Your task to perform on an android device: open app "Upside-Cash back on gas & food" (install if not already installed), go to login, and select forgot password Image 0: 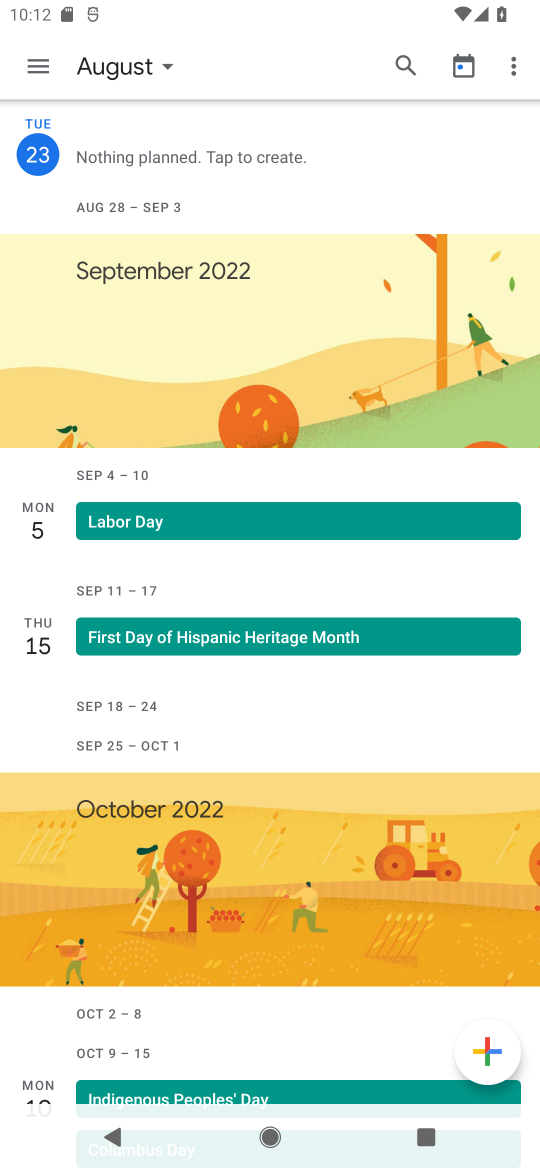
Step 0: press back button
Your task to perform on an android device: open app "Upside-Cash back on gas & food" (install if not already installed), go to login, and select forgot password Image 1: 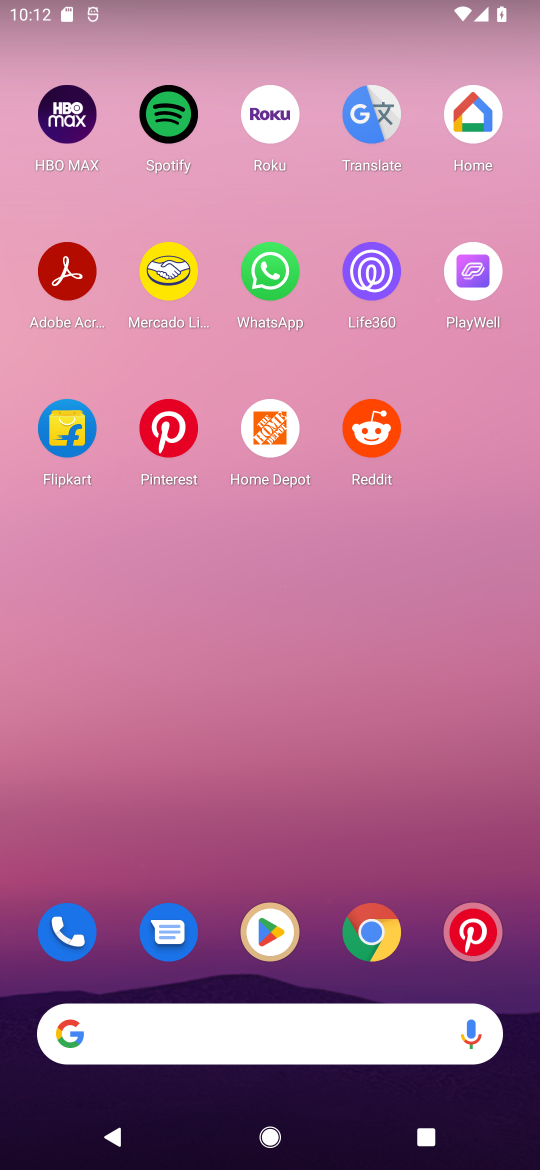
Step 1: click (281, 920)
Your task to perform on an android device: open app "Upside-Cash back on gas & food" (install if not already installed), go to login, and select forgot password Image 2: 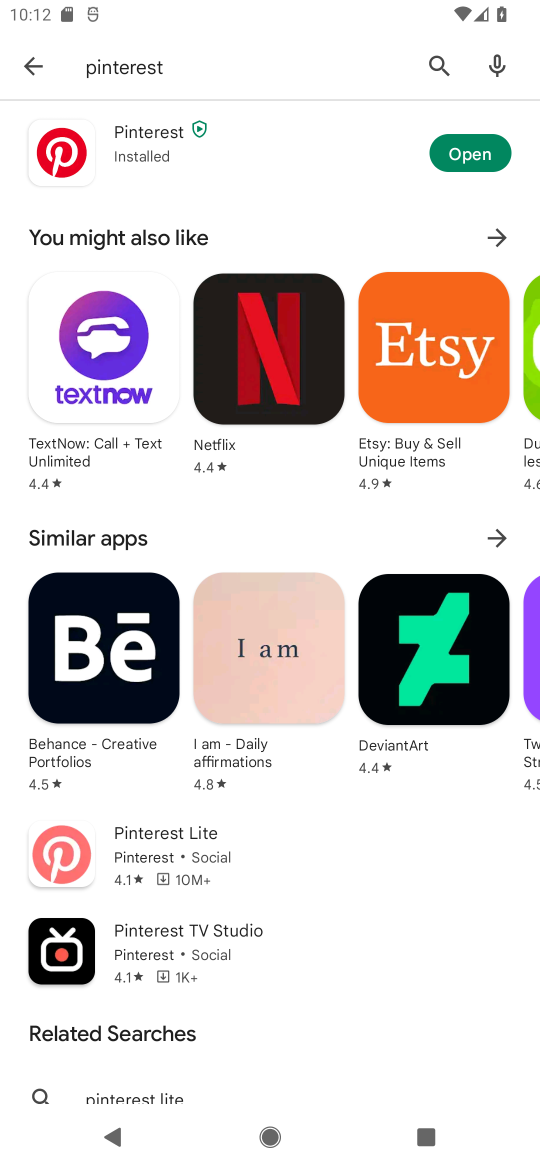
Step 2: click (432, 57)
Your task to perform on an android device: open app "Upside-Cash back on gas & food" (install if not already installed), go to login, and select forgot password Image 3: 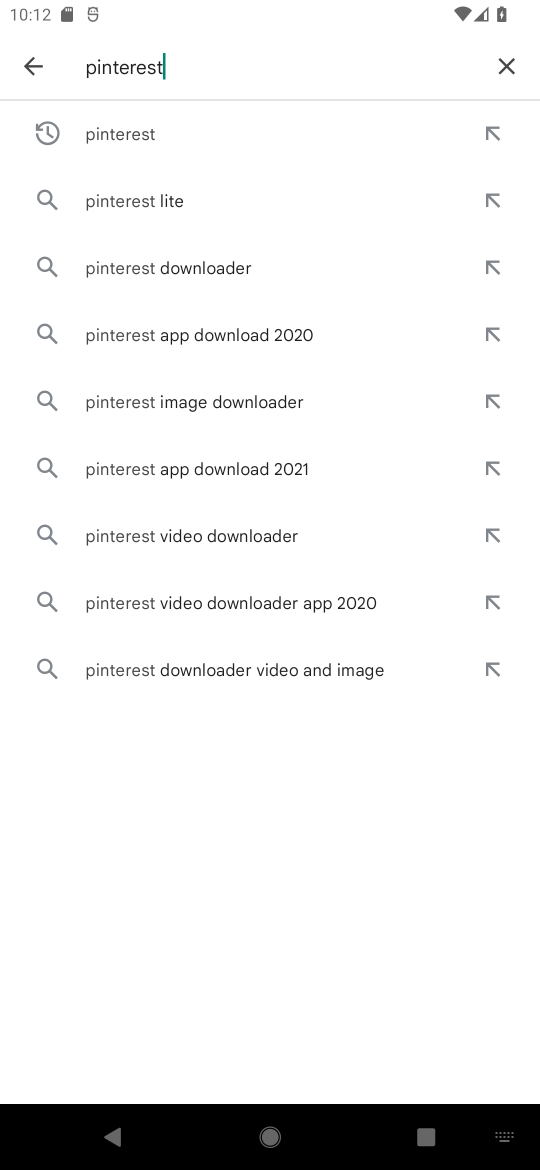
Step 3: click (504, 56)
Your task to perform on an android device: open app "Upside-Cash back on gas & food" (install if not already installed), go to login, and select forgot password Image 4: 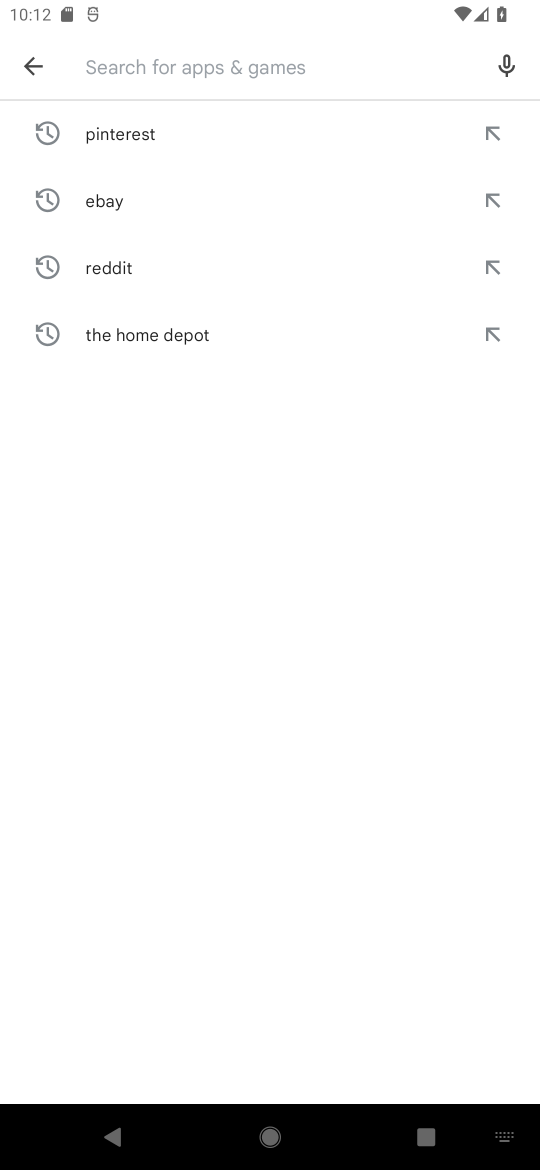
Step 4: click (225, 74)
Your task to perform on an android device: open app "Upside-Cash back on gas & food" (install if not already installed), go to login, and select forgot password Image 5: 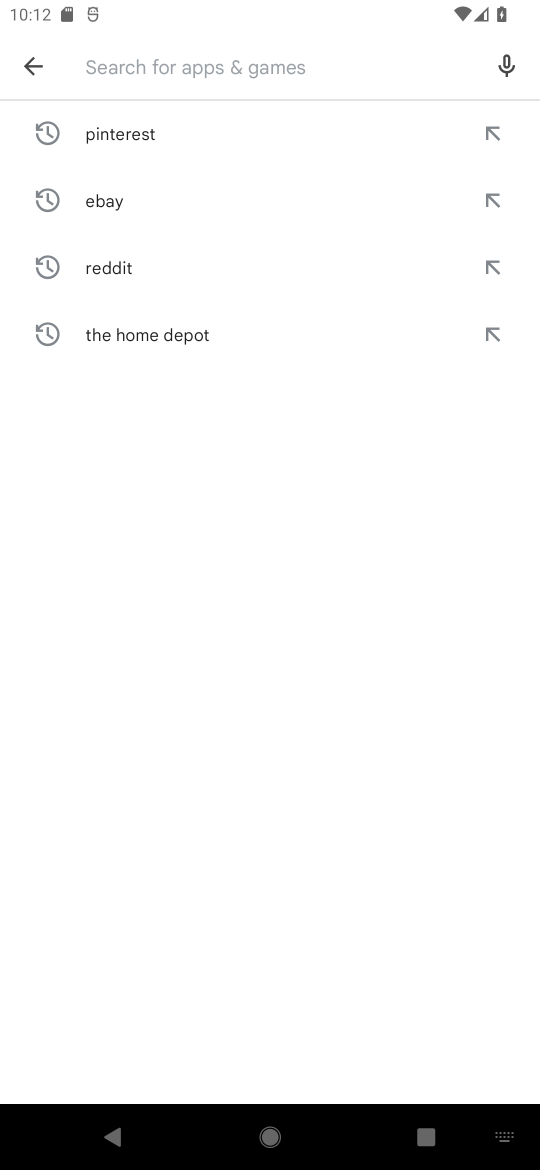
Step 5: type "upside cash"
Your task to perform on an android device: open app "Upside-Cash back on gas & food" (install if not already installed), go to login, and select forgot password Image 6: 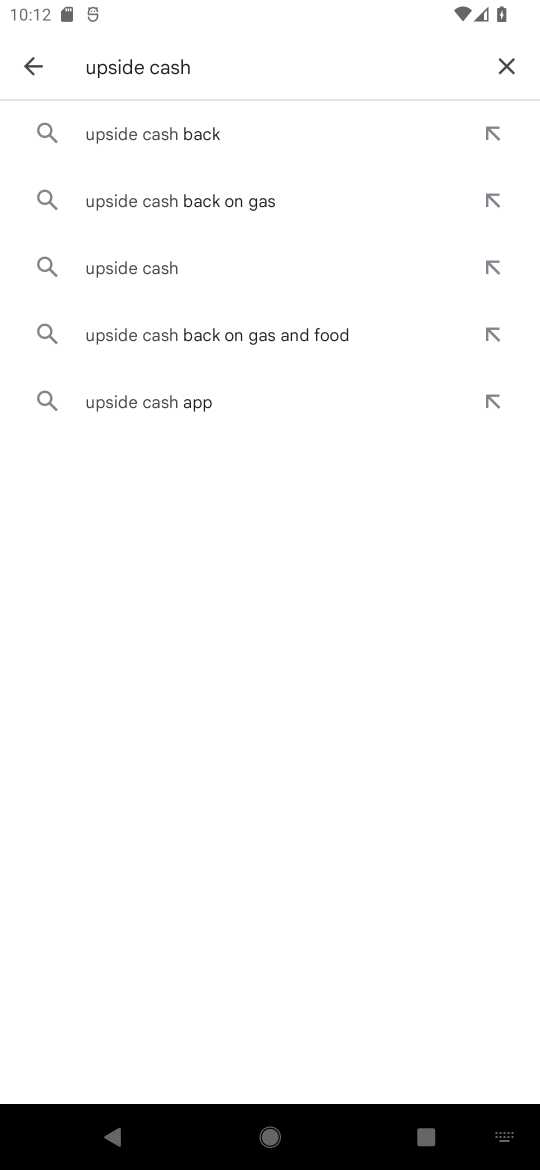
Step 6: click (182, 119)
Your task to perform on an android device: open app "Upside-Cash back on gas & food" (install if not already installed), go to login, and select forgot password Image 7: 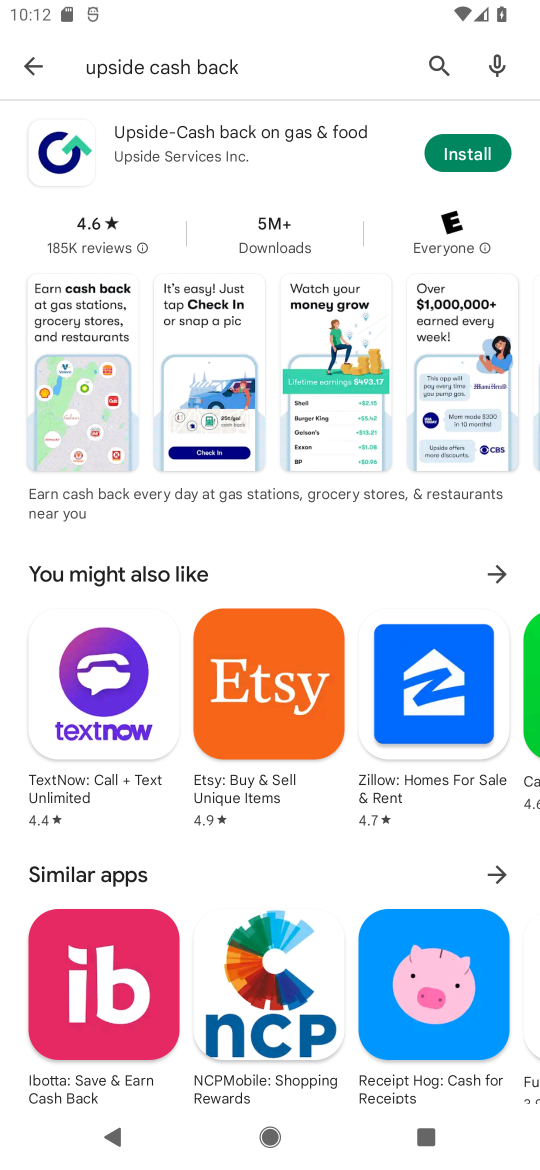
Step 7: click (452, 149)
Your task to perform on an android device: open app "Upside-Cash back on gas & food" (install if not already installed), go to login, and select forgot password Image 8: 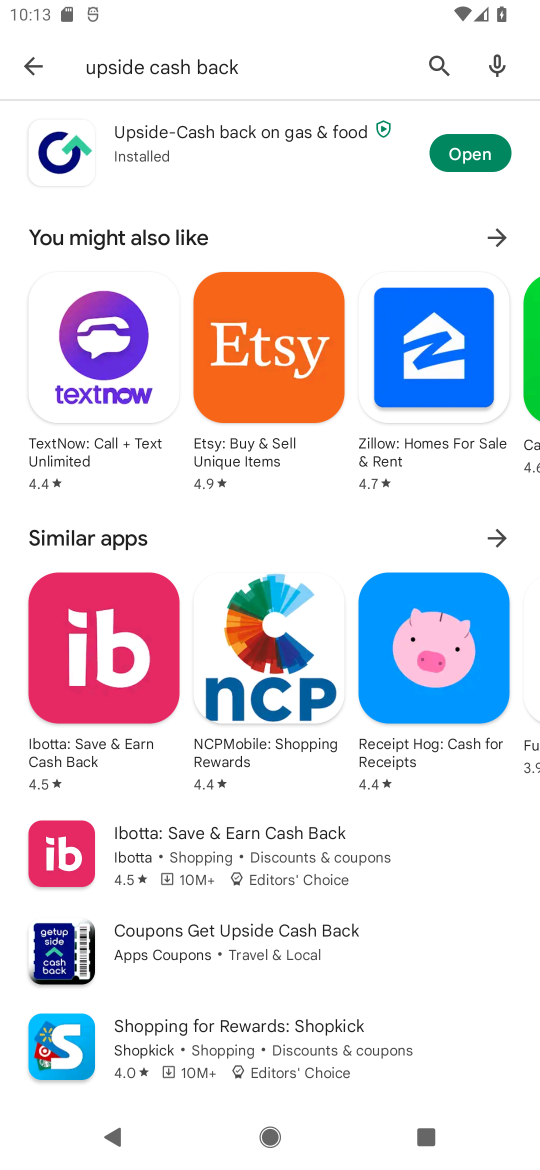
Step 8: click (455, 143)
Your task to perform on an android device: open app "Upside-Cash back on gas & food" (install if not already installed), go to login, and select forgot password Image 9: 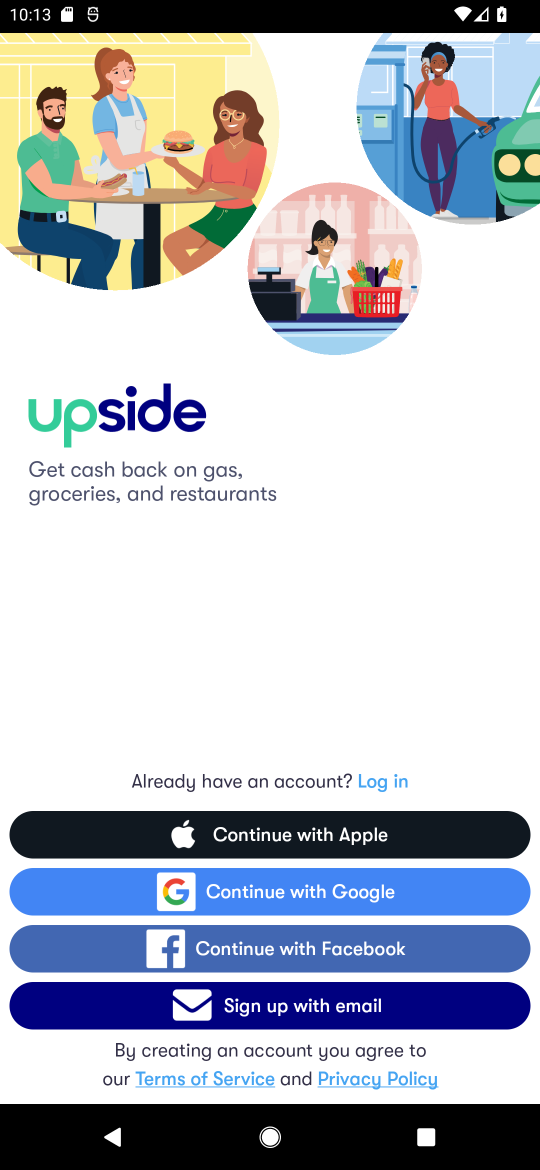
Step 9: click (385, 772)
Your task to perform on an android device: open app "Upside-Cash back on gas & food" (install if not already installed), go to login, and select forgot password Image 10: 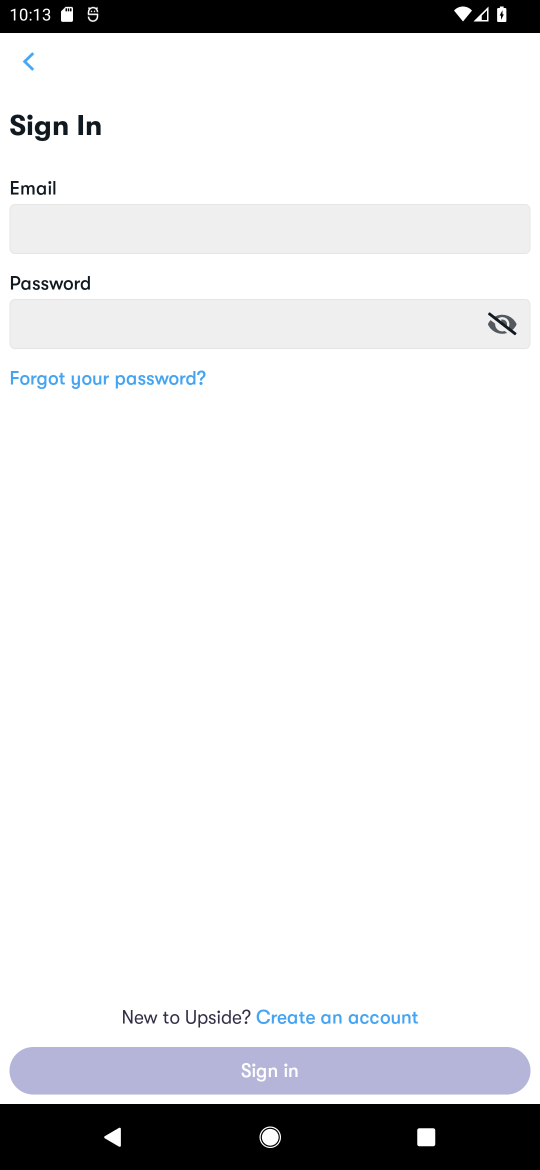
Step 10: click (87, 376)
Your task to perform on an android device: open app "Upside-Cash back on gas & food" (install if not already installed), go to login, and select forgot password Image 11: 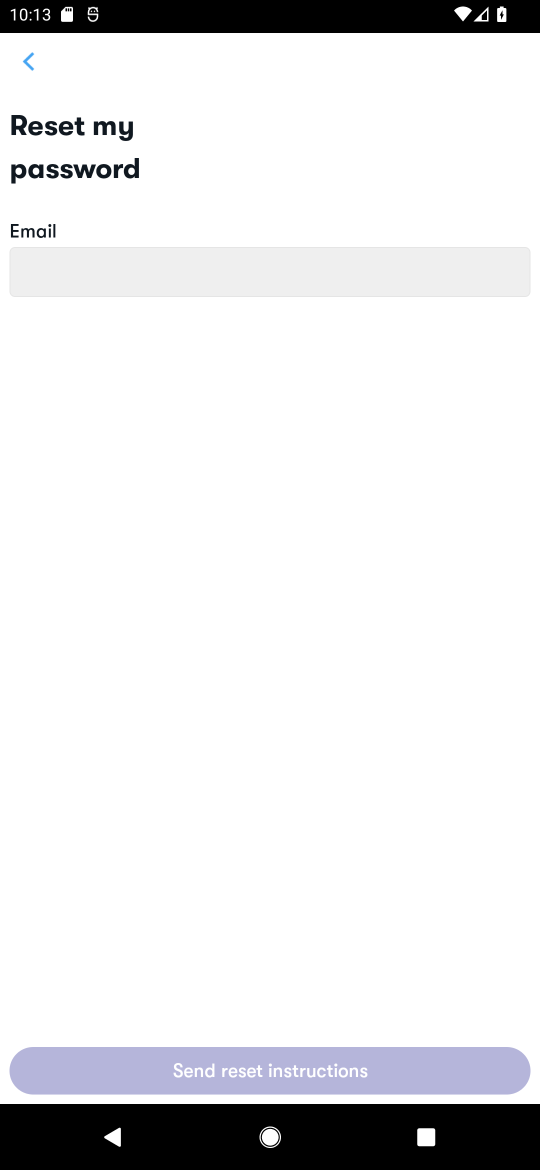
Step 11: task complete